Your task to perform on an android device: change the clock display to show seconds Image 0: 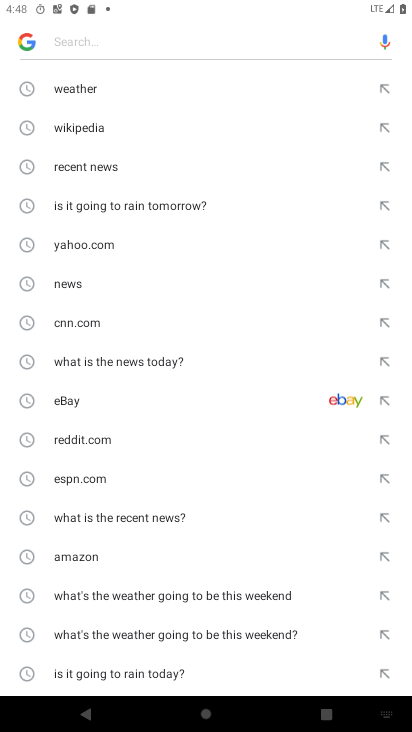
Step 0: press home button
Your task to perform on an android device: change the clock display to show seconds Image 1: 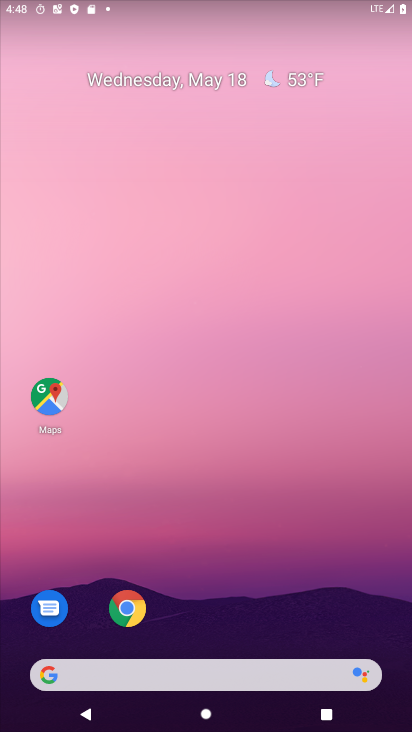
Step 1: drag from (312, 659) to (355, 0)
Your task to perform on an android device: change the clock display to show seconds Image 2: 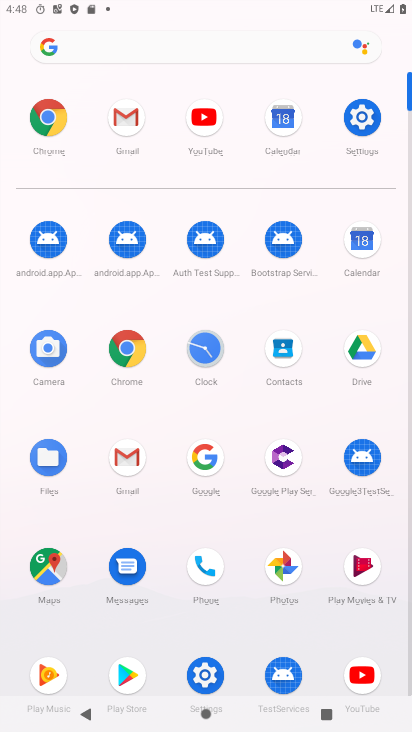
Step 2: click (201, 360)
Your task to perform on an android device: change the clock display to show seconds Image 3: 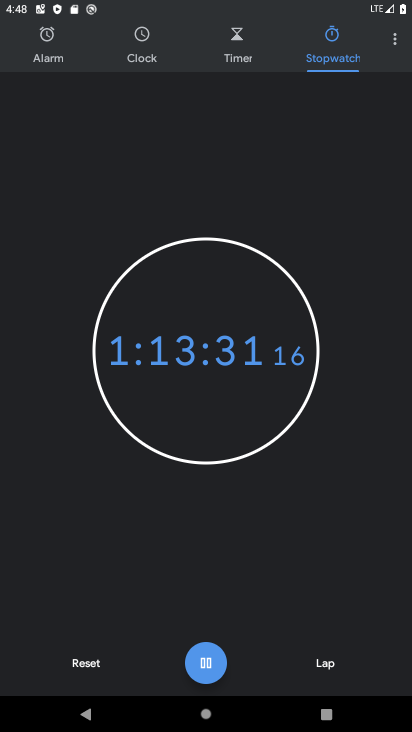
Step 3: click (389, 42)
Your task to perform on an android device: change the clock display to show seconds Image 4: 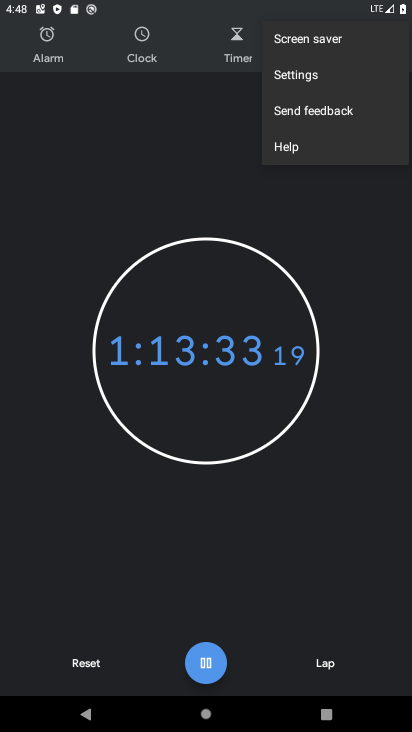
Step 4: click (325, 73)
Your task to perform on an android device: change the clock display to show seconds Image 5: 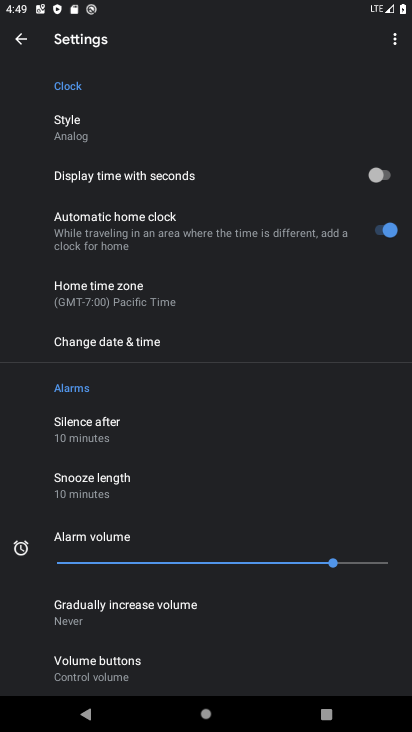
Step 5: click (386, 176)
Your task to perform on an android device: change the clock display to show seconds Image 6: 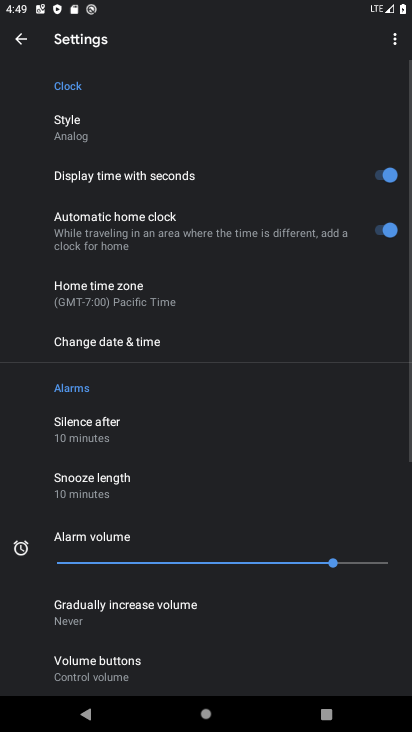
Step 6: task complete